Your task to perform on an android device: open app "File Manager" (install if not already installed) Image 0: 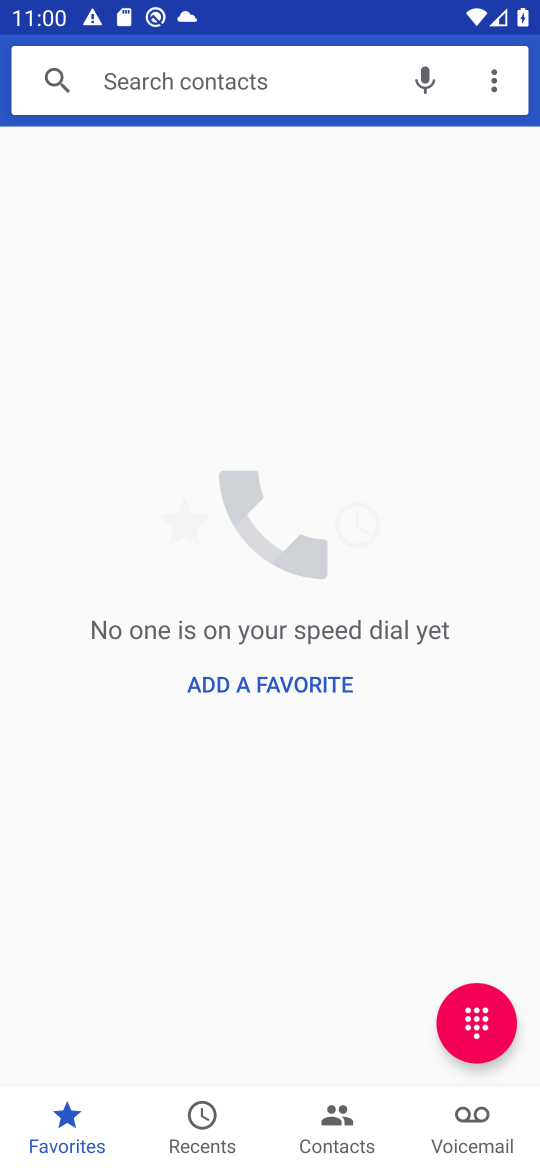
Step 0: press home button
Your task to perform on an android device: open app "File Manager" (install if not already installed) Image 1: 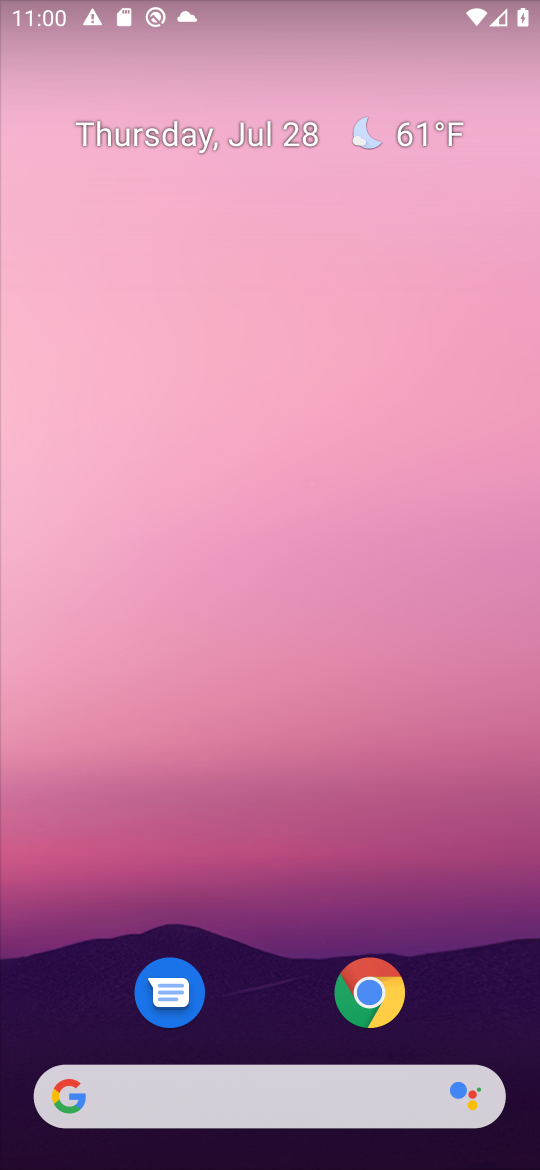
Step 1: drag from (207, 1113) to (430, 81)
Your task to perform on an android device: open app "File Manager" (install if not already installed) Image 2: 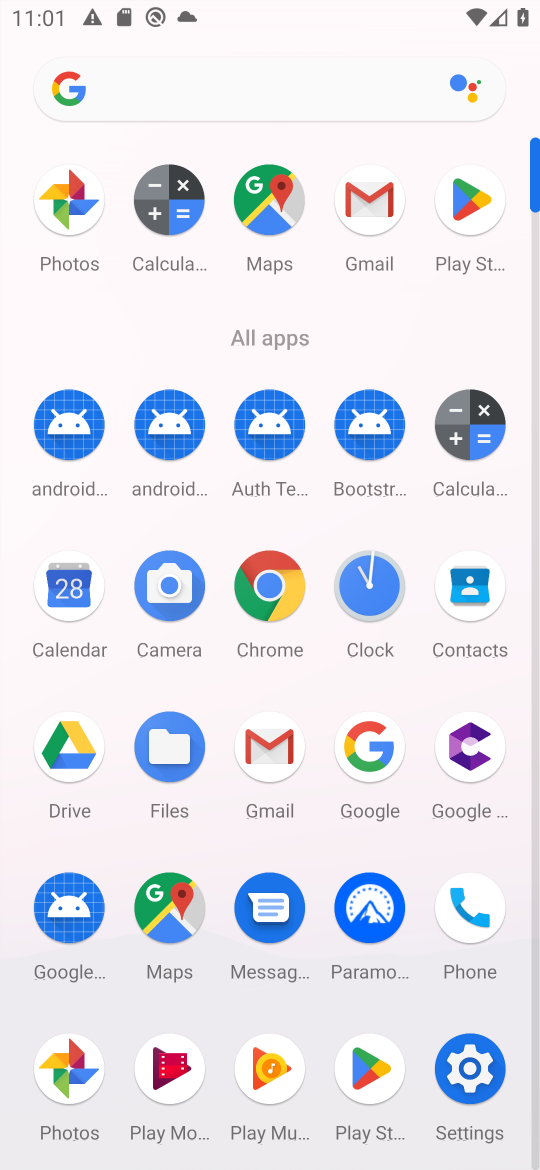
Step 2: click (474, 197)
Your task to perform on an android device: open app "File Manager" (install if not already installed) Image 3: 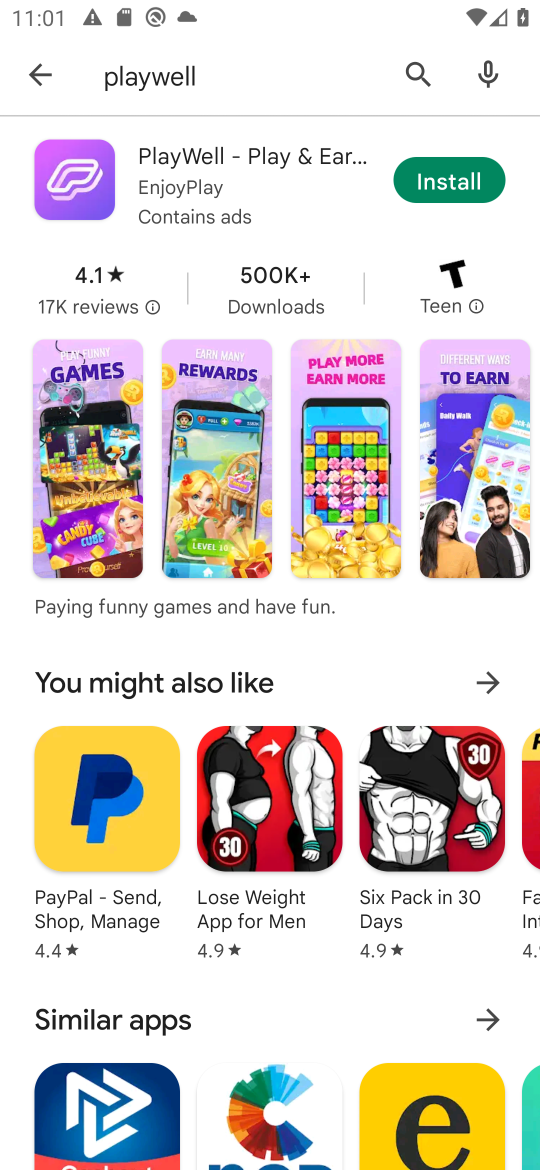
Step 3: click (418, 69)
Your task to perform on an android device: open app "File Manager" (install if not already installed) Image 4: 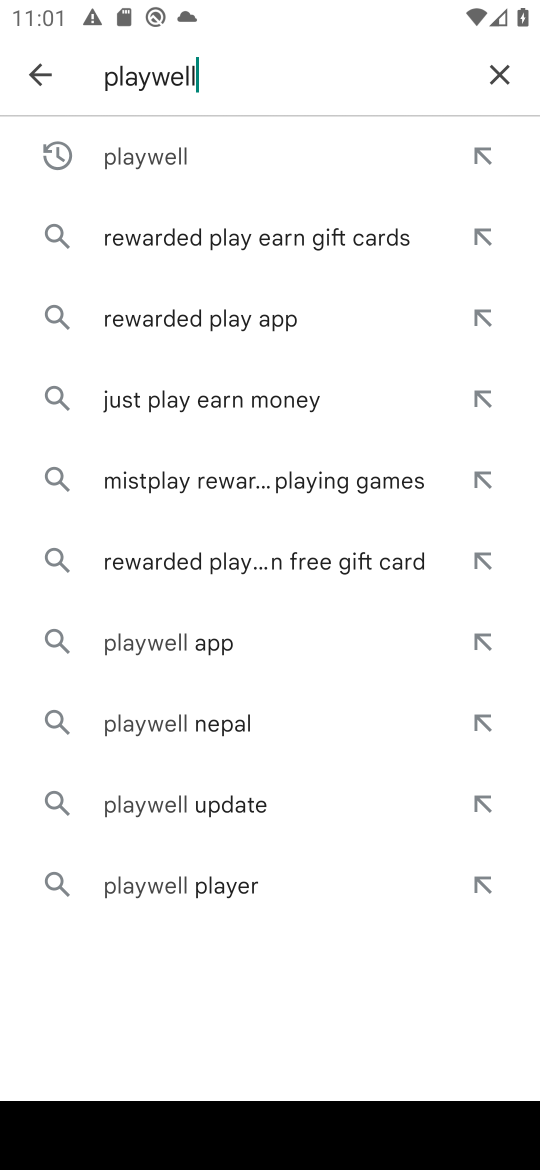
Step 4: click (499, 74)
Your task to perform on an android device: open app "File Manager" (install if not already installed) Image 5: 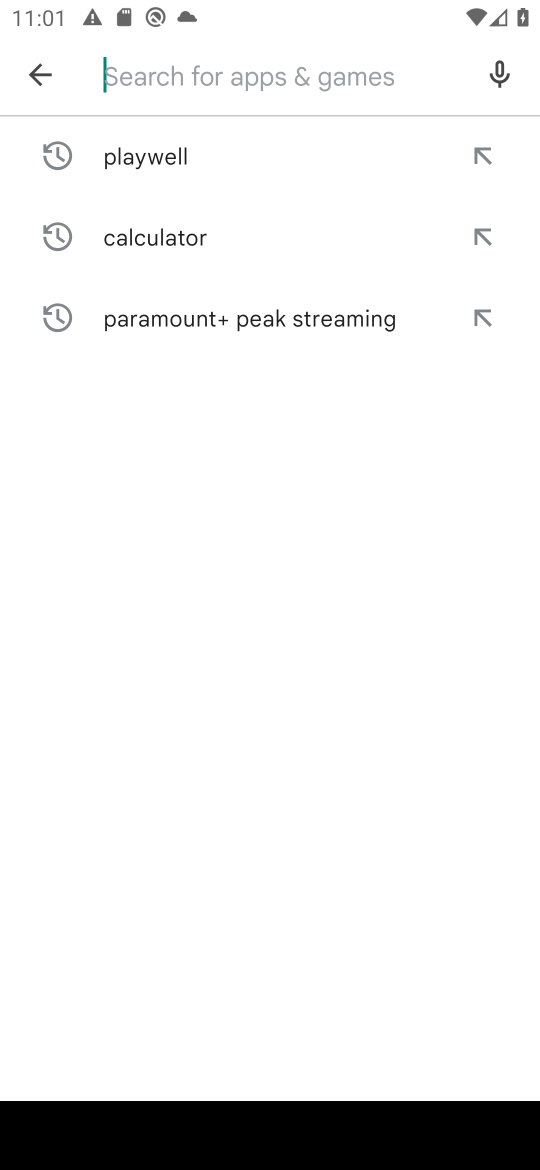
Step 5: type "File Manager"
Your task to perform on an android device: open app "File Manager" (install if not already installed) Image 6: 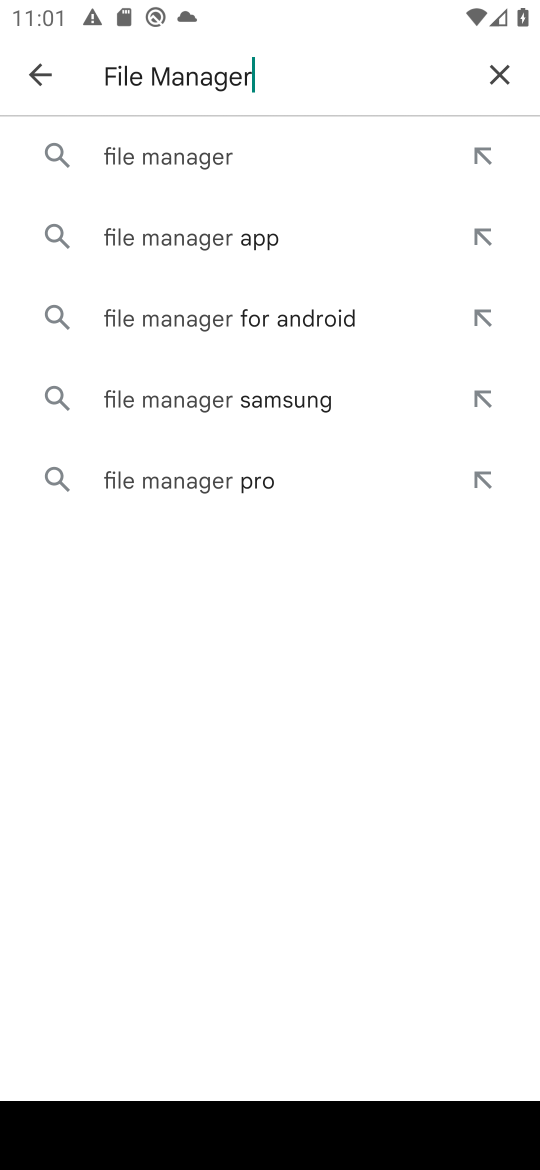
Step 6: click (201, 152)
Your task to perform on an android device: open app "File Manager" (install if not already installed) Image 7: 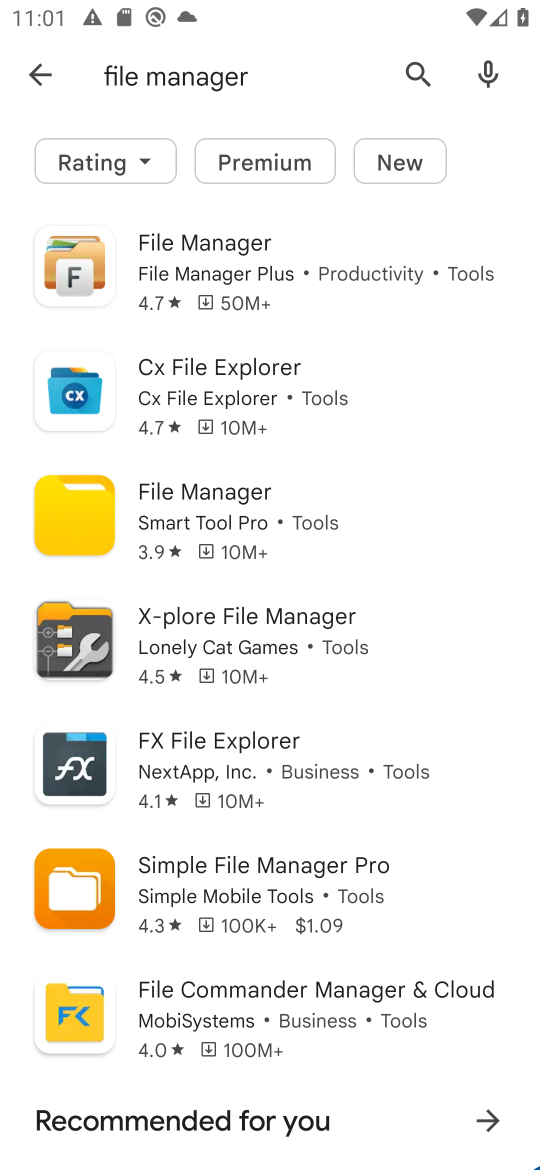
Step 7: click (207, 244)
Your task to perform on an android device: open app "File Manager" (install if not already installed) Image 8: 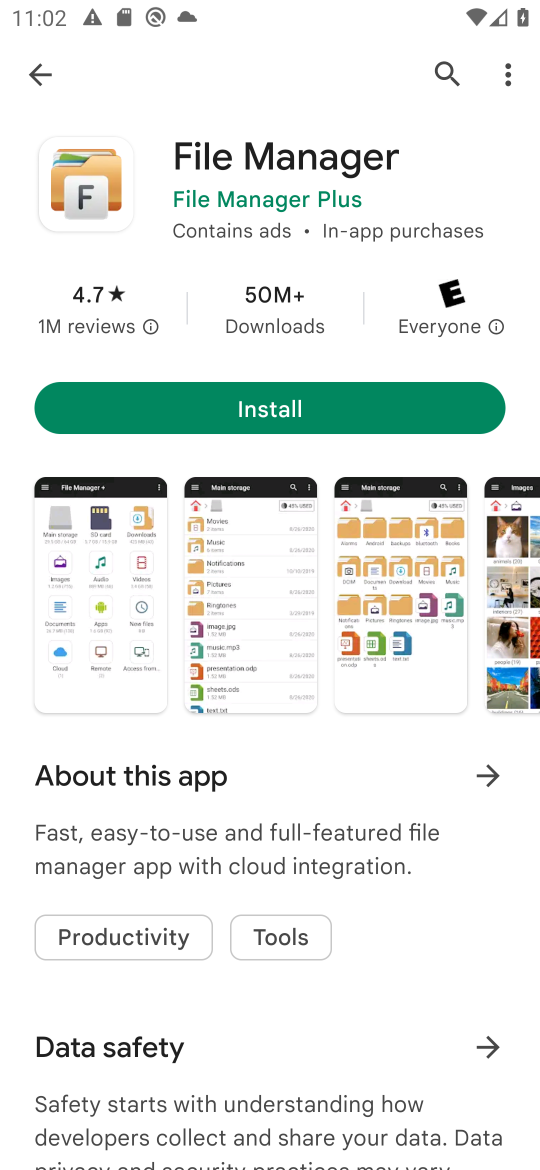
Step 8: click (226, 393)
Your task to perform on an android device: open app "File Manager" (install if not already installed) Image 9: 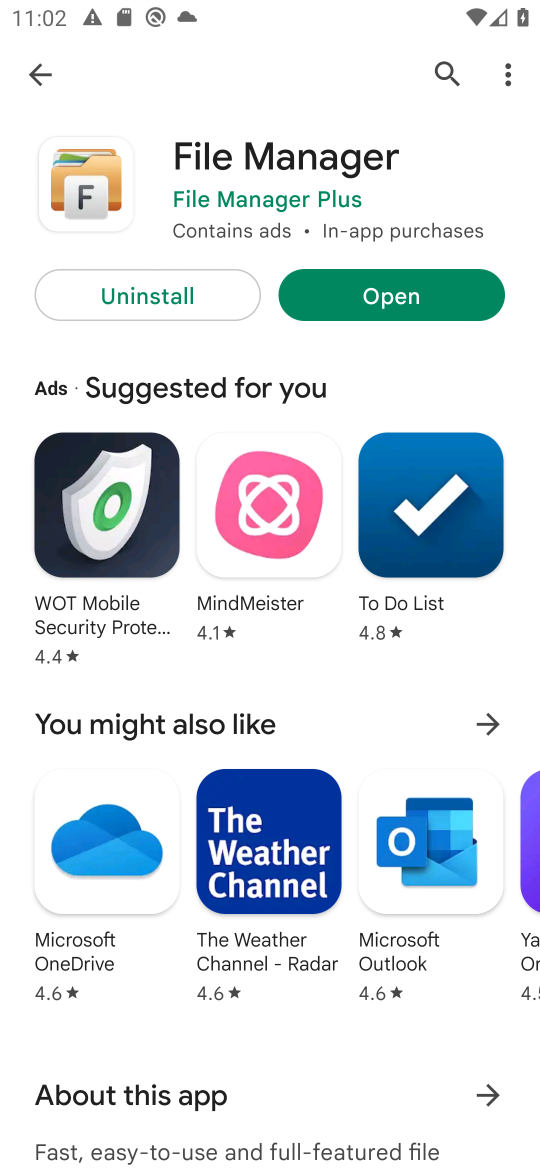
Step 9: click (363, 299)
Your task to perform on an android device: open app "File Manager" (install if not already installed) Image 10: 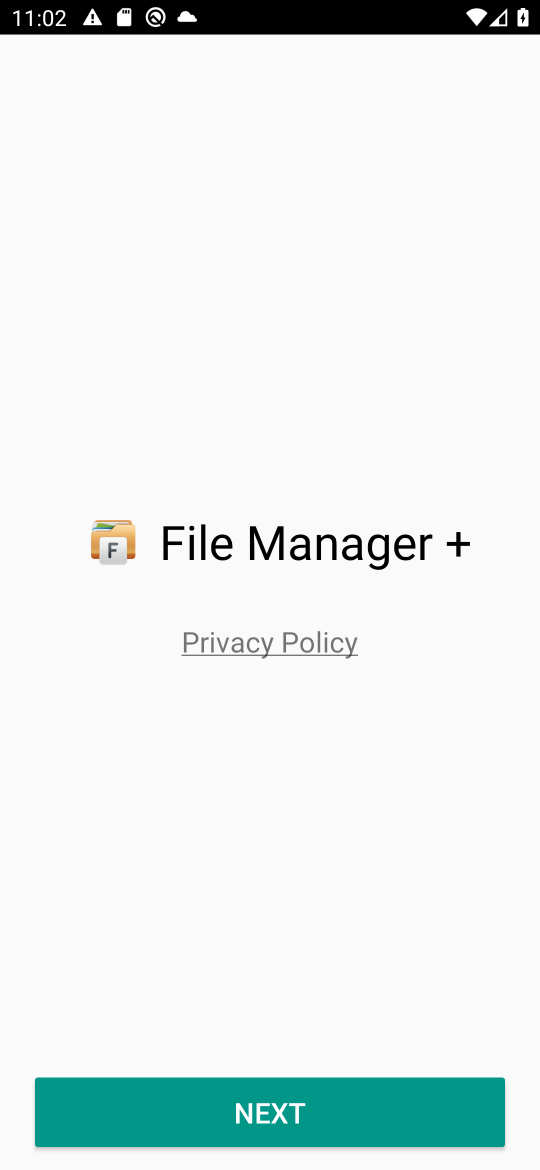
Step 10: task complete